Your task to perform on an android device: open sync settings in chrome Image 0: 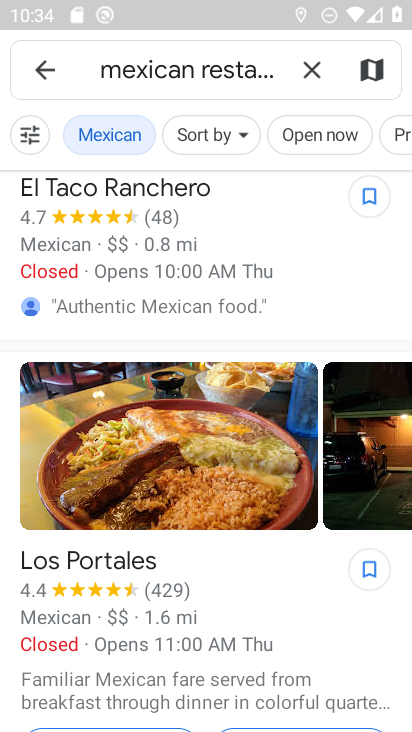
Step 0: press home button
Your task to perform on an android device: open sync settings in chrome Image 1: 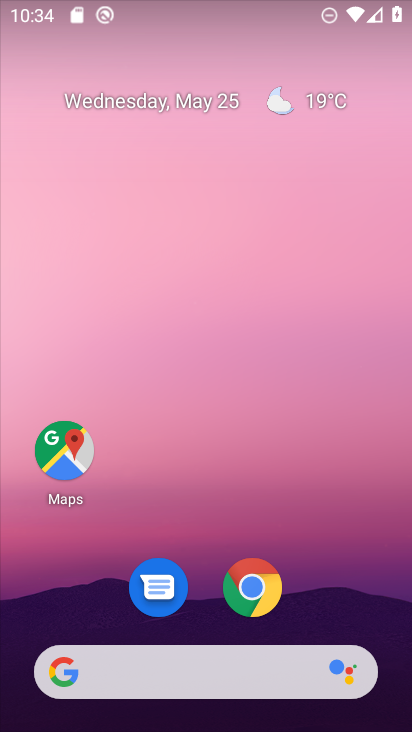
Step 1: click (255, 586)
Your task to perform on an android device: open sync settings in chrome Image 2: 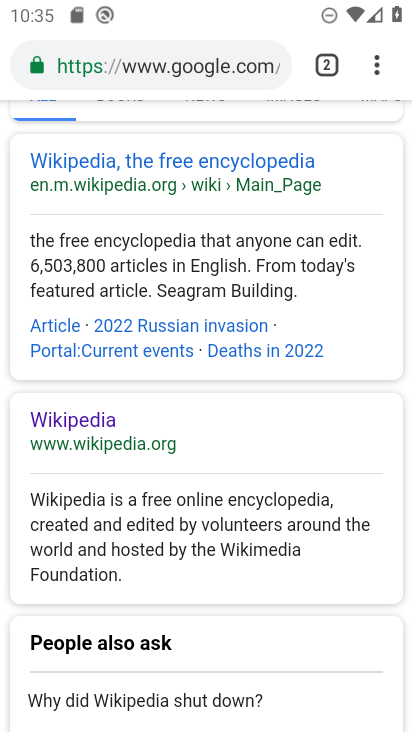
Step 2: click (378, 70)
Your task to perform on an android device: open sync settings in chrome Image 3: 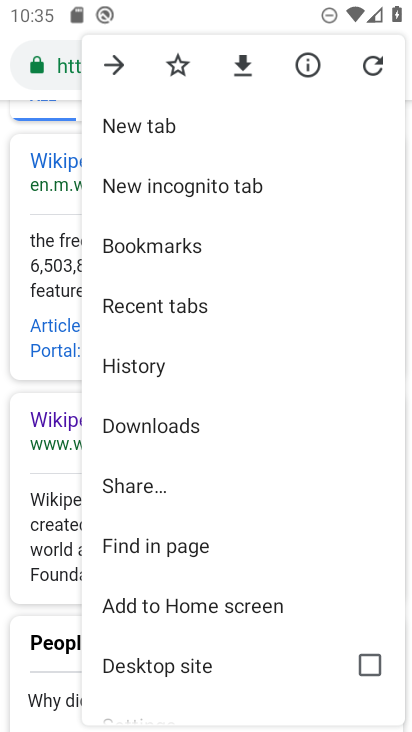
Step 3: drag from (308, 621) to (302, 312)
Your task to perform on an android device: open sync settings in chrome Image 4: 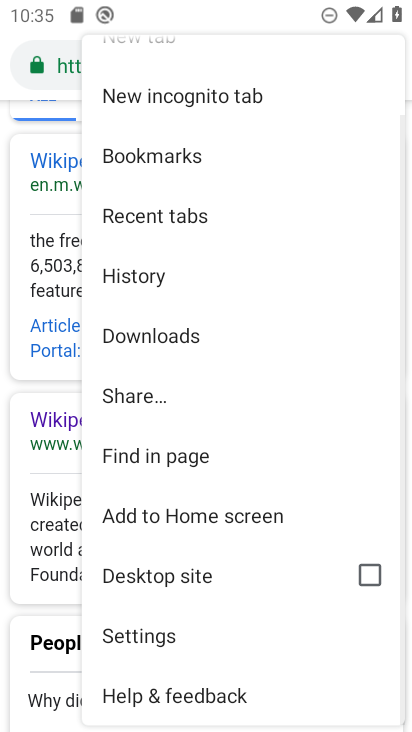
Step 4: click (163, 643)
Your task to perform on an android device: open sync settings in chrome Image 5: 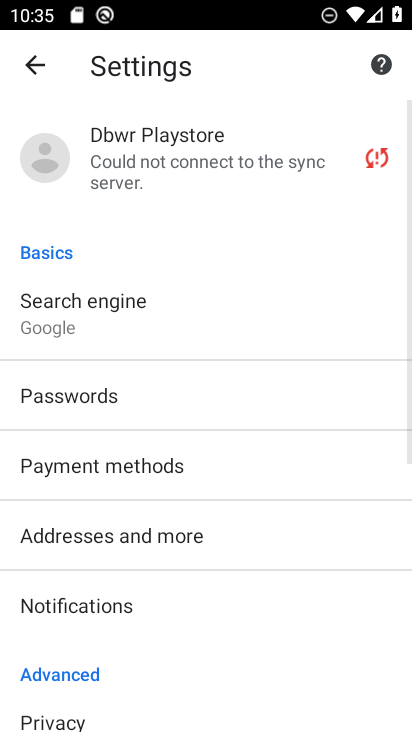
Step 5: click (171, 161)
Your task to perform on an android device: open sync settings in chrome Image 6: 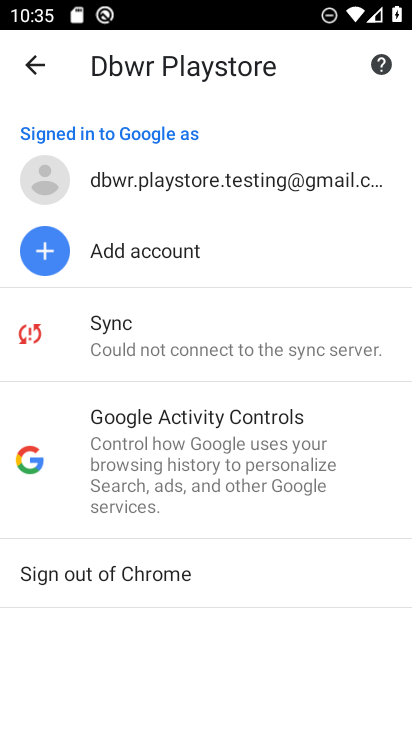
Step 6: click (120, 350)
Your task to perform on an android device: open sync settings in chrome Image 7: 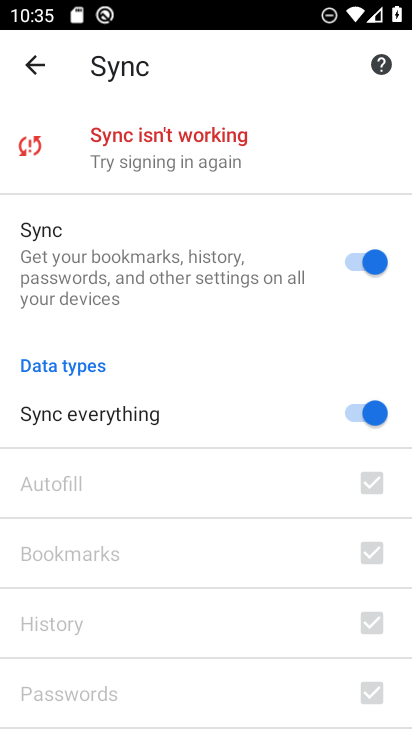
Step 7: task complete